Your task to perform on an android device: check google app version Image 0: 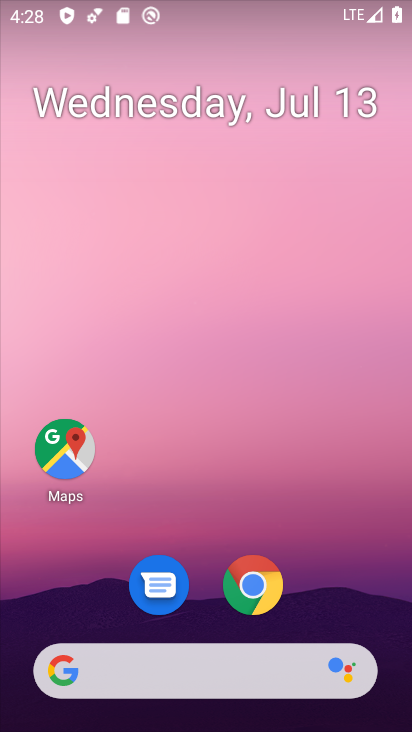
Step 0: drag from (357, 590) to (388, 44)
Your task to perform on an android device: check google app version Image 1: 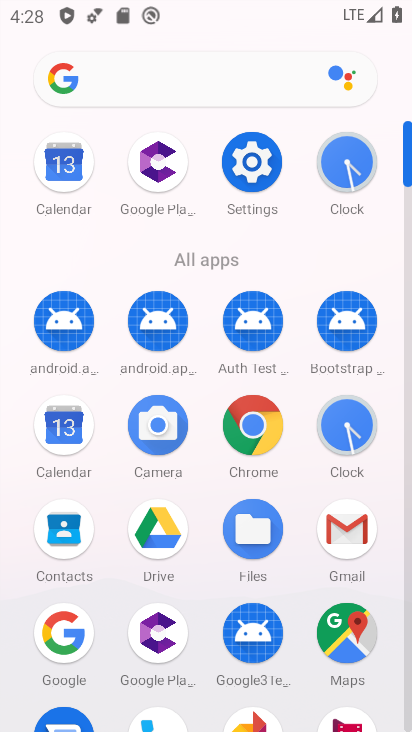
Step 1: click (70, 626)
Your task to perform on an android device: check google app version Image 2: 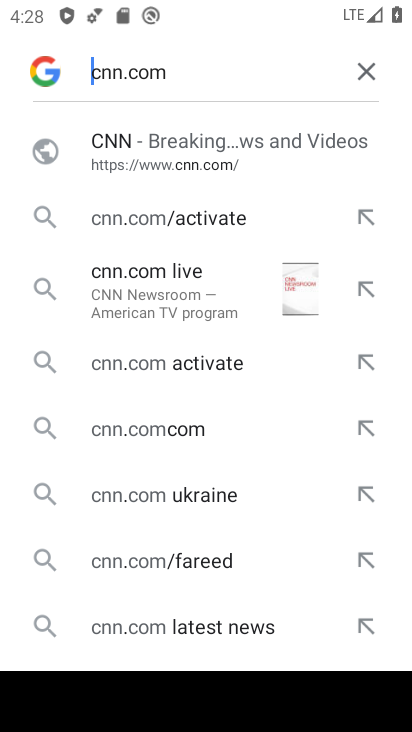
Step 2: click (50, 74)
Your task to perform on an android device: check google app version Image 3: 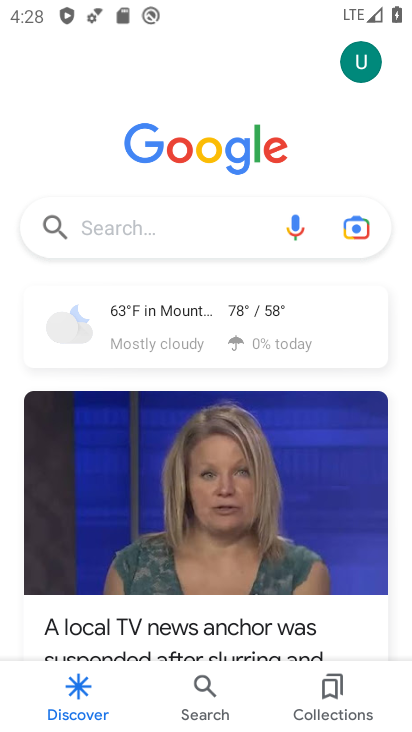
Step 3: click (362, 69)
Your task to perform on an android device: check google app version Image 4: 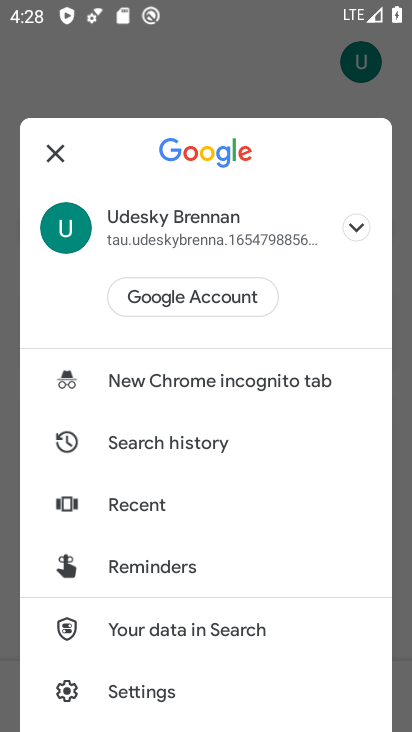
Step 4: click (130, 685)
Your task to perform on an android device: check google app version Image 5: 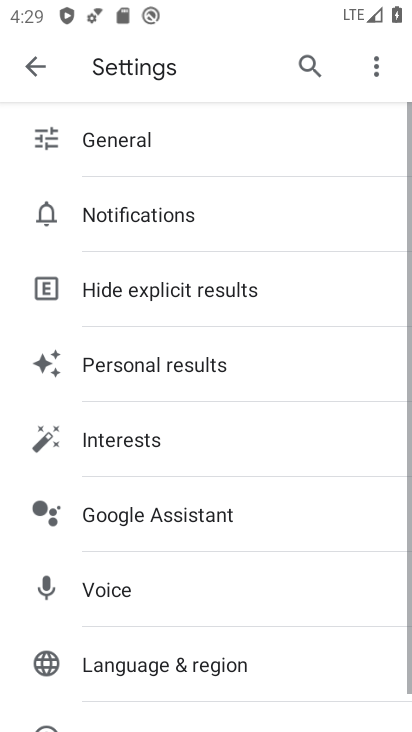
Step 5: drag from (196, 593) to (224, 309)
Your task to perform on an android device: check google app version Image 6: 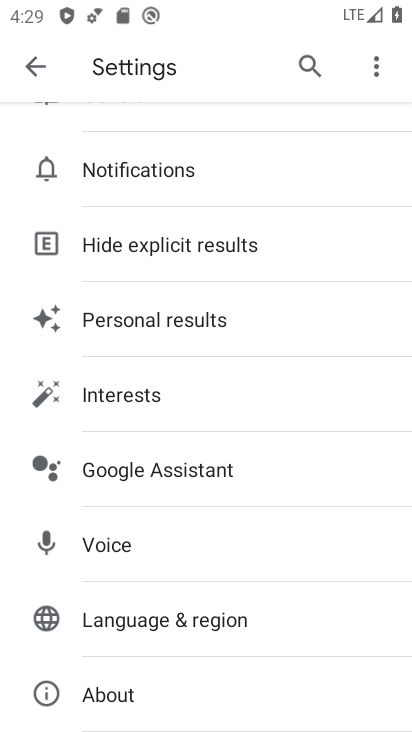
Step 6: click (106, 697)
Your task to perform on an android device: check google app version Image 7: 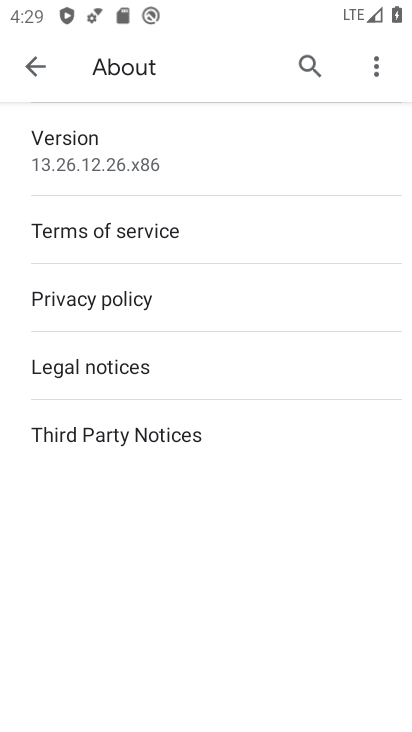
Step 7: task complete